Your task to perform on an android device: toggle improve location accuracy Image 0: 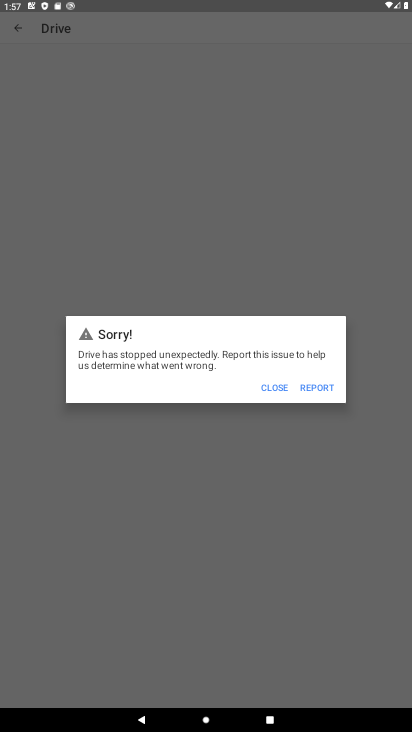
Step 0: press home button
Your task to perform on an android device: toggle improve location accuracy Image 1: 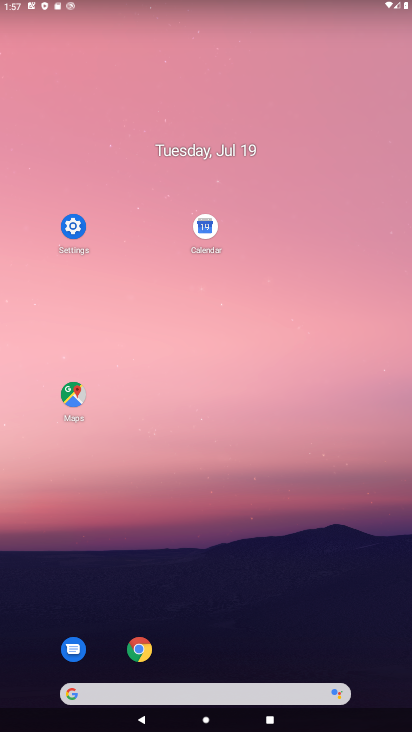
Step 1: click (67, 232)
Your task to perform on an android device: toggle improve location accuracy Image 2: 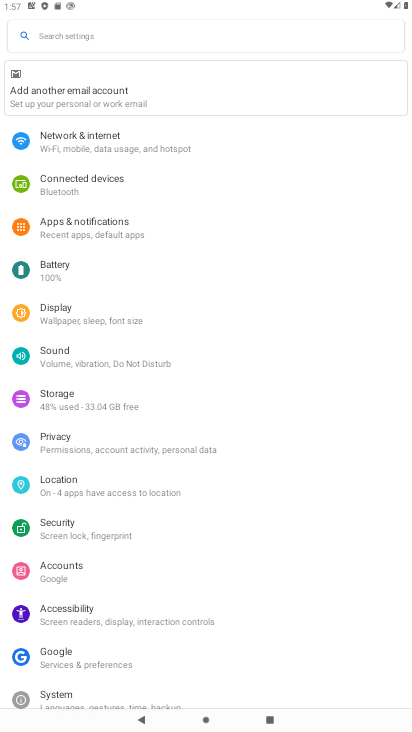
Step 2: click (139, 488)
Your task to perform on an android device: toggle improve location accuracy Image 3: 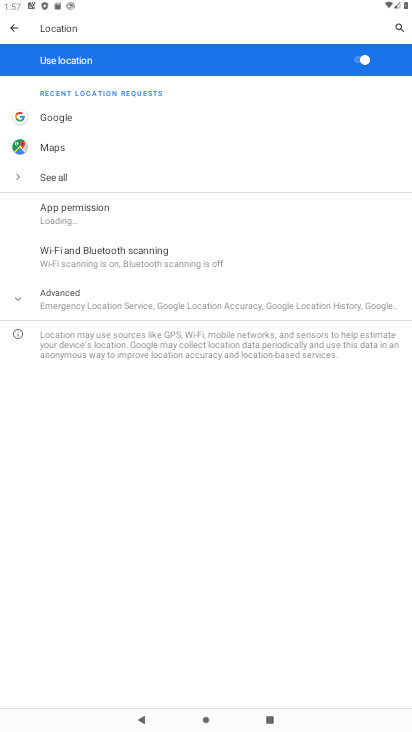
Step 3: click (166, 303)
Your task to perform on an android device: toggle improve location accuracy Image 4: 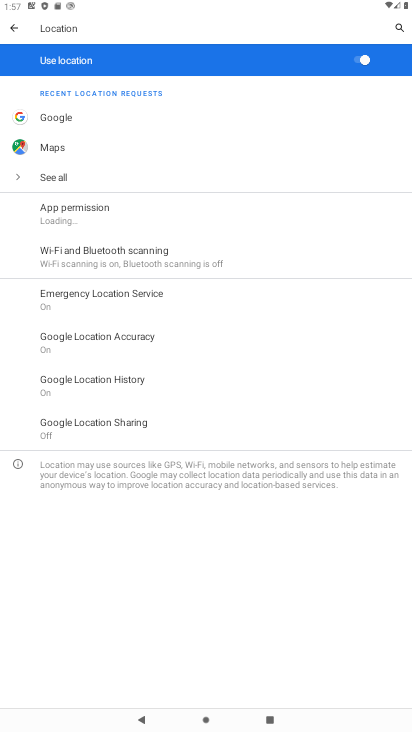
Step 4: click (122, 331)
Your task to perform on an android device: toggle improve location accuracy Image 5: 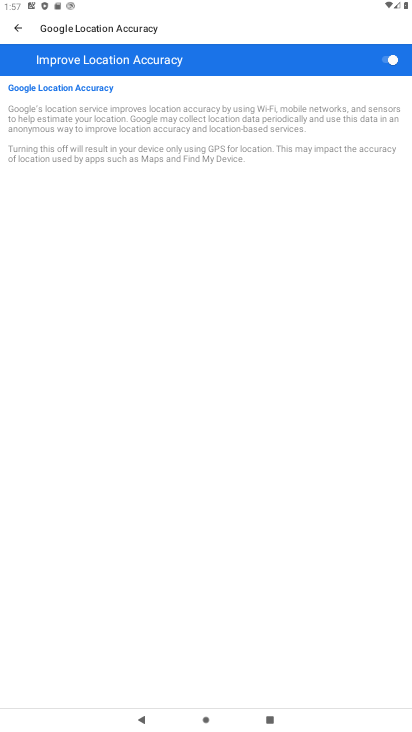
Step 5: click (388, 67)
Your task to perform on an android device: toggle improve location accuracy Image 6: 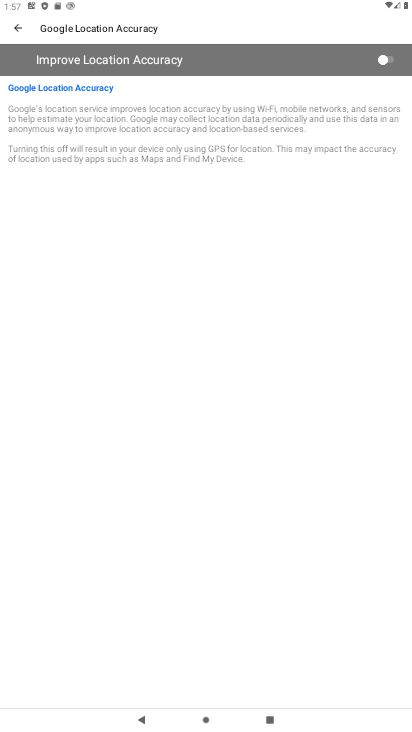
Step 6: task complete